Your task to perform on an android device: Turn on the flashlight Image 0: 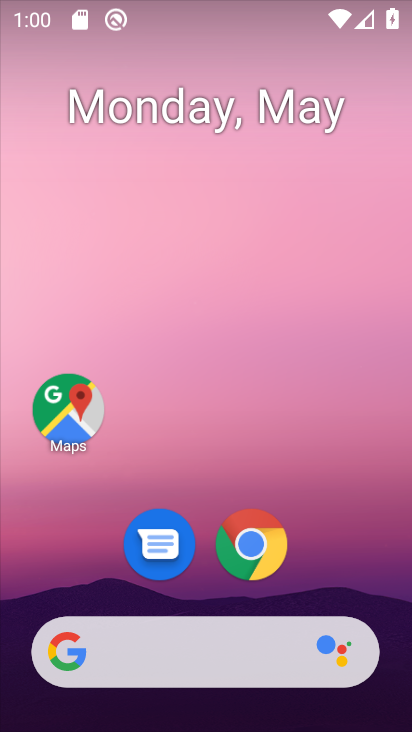
Step 0: drag from (243, 8) to (258, 397)
Your task to perform on an android device: Turn on the flashlight Image 1: 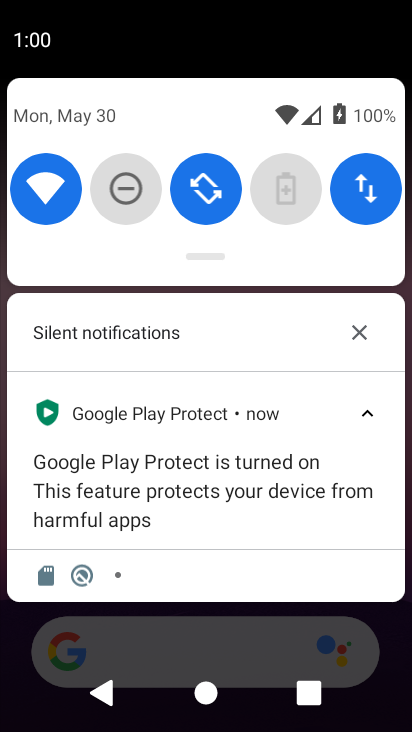
Step 1: drag from (243, 109) to (251, 361)
Your task to perform on an android device: Turn on the flashlight Image 2: 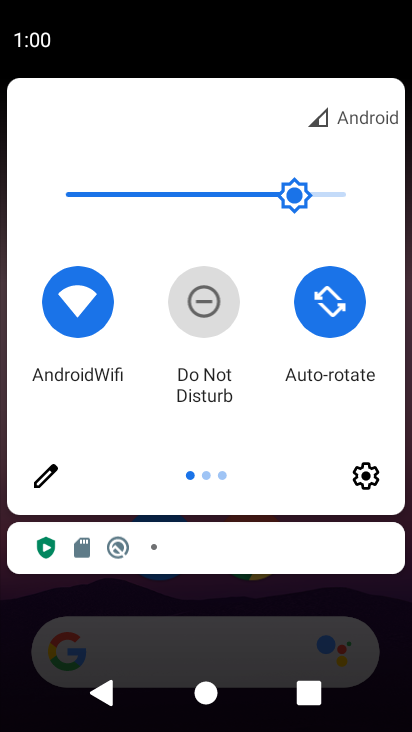
Step 2: click (49, 486)
Your task to perform on an android device: Turn on the flashlight Image 3: 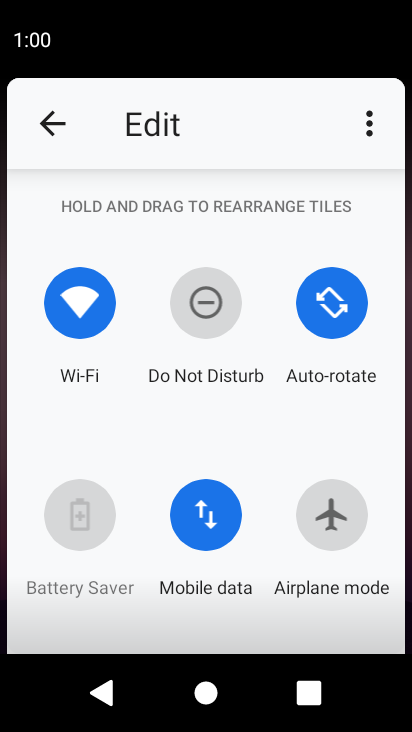
Step 3: task complete